Your task to perform on an android device: install app "Pinterest" Image 0: 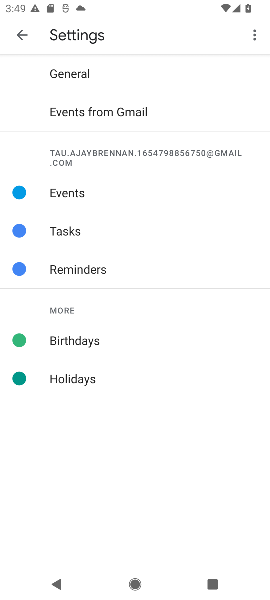
Step 0: press home button
Your task to perform on an android device: install app "Pinterest" Image 1: 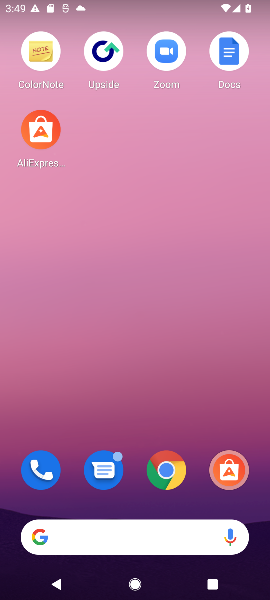
Step 1: drag from (136, 488) to (138, 56)
Your task to perform on an android device: install app "Pinterest" Image 2: 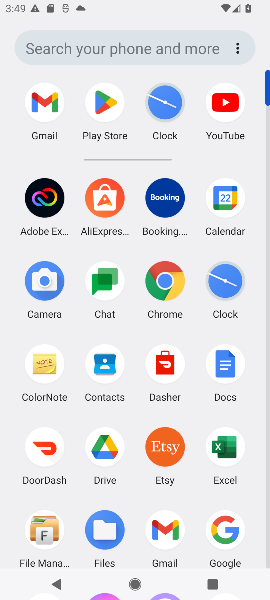
Step 2: drag from (120, 472) to (113, 551)
Your task to perform on an android device: install app "Pinterest" Image 3: 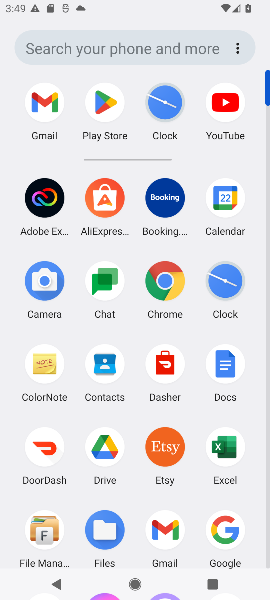
Step 3: click (99, 97)
Your task to perform on an android device: install app "Pinterest" Image 4: 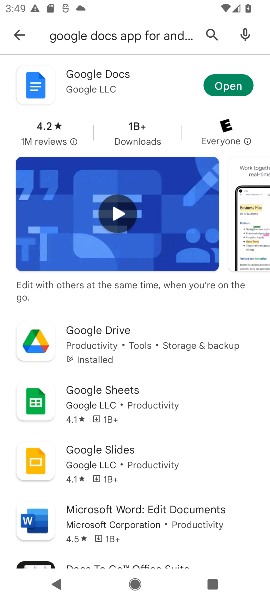
Step 4: click (18, 31)
Your task to perform on an android device: install app "Pinterest" Image 5: 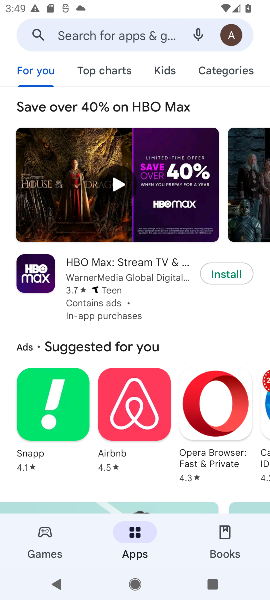
Step 5: click (96, 26)
Your task to perform on an android device: install app "Pinterest" Image 6: 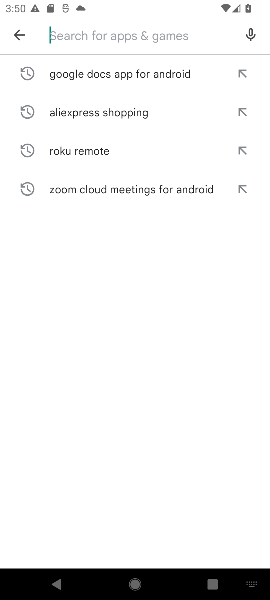
Step 6: type "Pinterest "
Your task to perform on an android device: install app "Pinterest" Image 7: 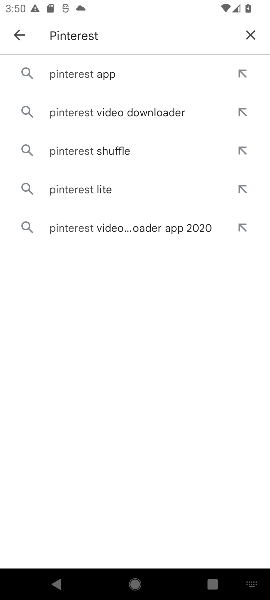
Step 7: click (106, 67)
Your task to perform on an android device: install app "Pinterest" Image 8: 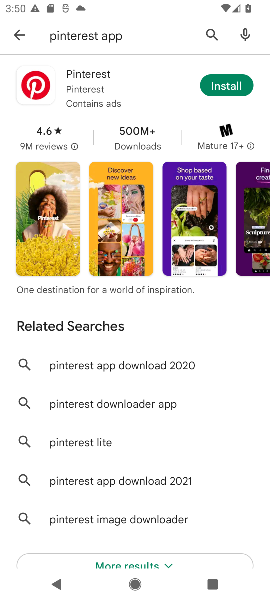
Step 8: click (242, 81)
Your task to perform on an android device: install app "Pinterest" Image 9: 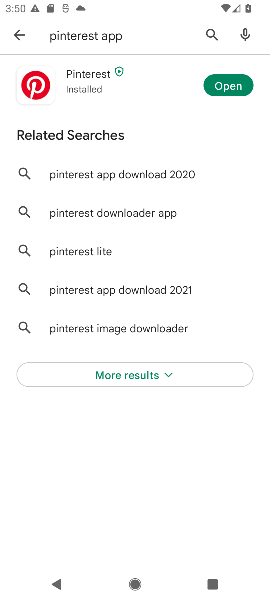
Step 9: click (224, 68)
Your task to perform on an android device: install app "Pinterest" Image 10: 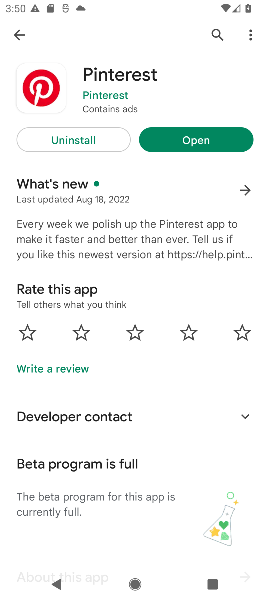
Step 10: task complete